Your task to perform on an android device: refresh tabs in the chrome app Image 0: 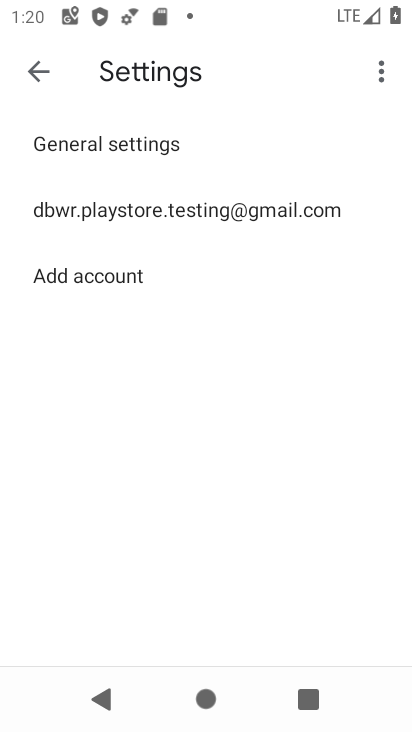
Step 0: press home button
Your task to perform on an android device: refresh tabs in the chrome app Image 1: 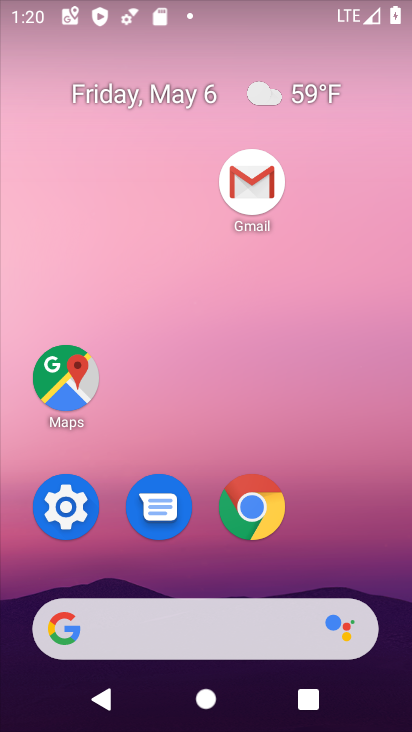
Step 1: click (257, 515)
Your task to perform on an android device: refresh tabs in the chrome app Image 2: 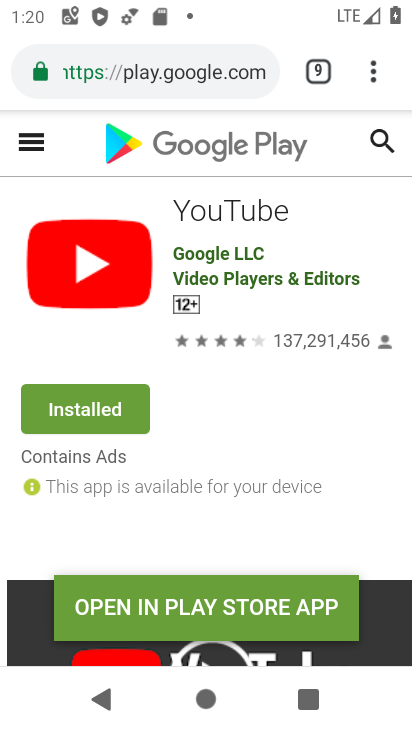
Step 2: click (374, 71)
Your task to perform on an android device: refresh tabs in the chrome app Image 3: 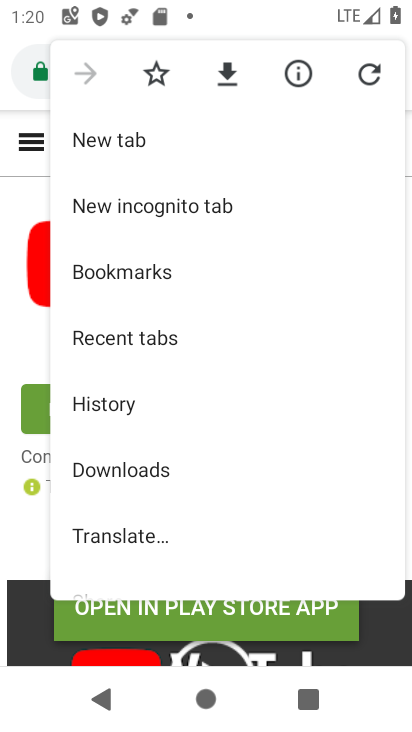
Step 3: click (372, 71)
Your task to perform on an android device: refresh tabs in the chrome app Image 4: 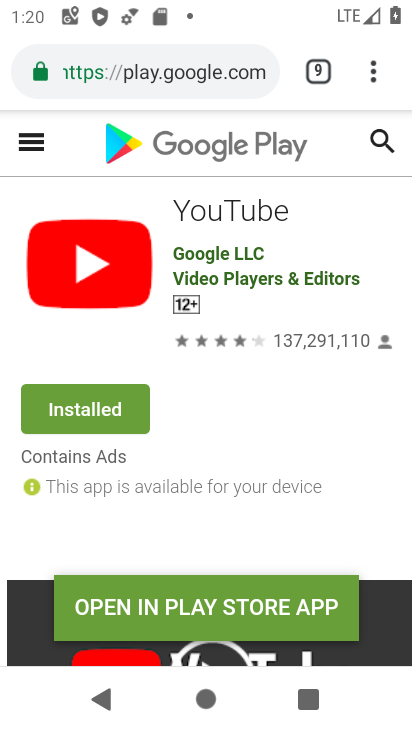
Step 4: task complete